Your task to perform on an android device: see sites visited before in the chrome app Image 0: 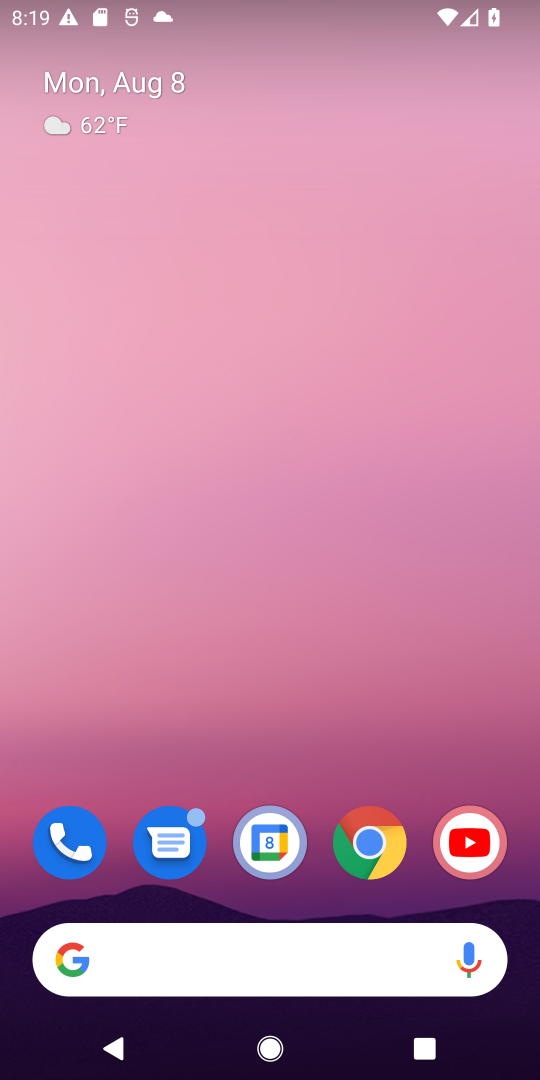
Step 0: click (374, 840)
Your task to perform on an android device: see sites visited before in the chrome app Image 1: 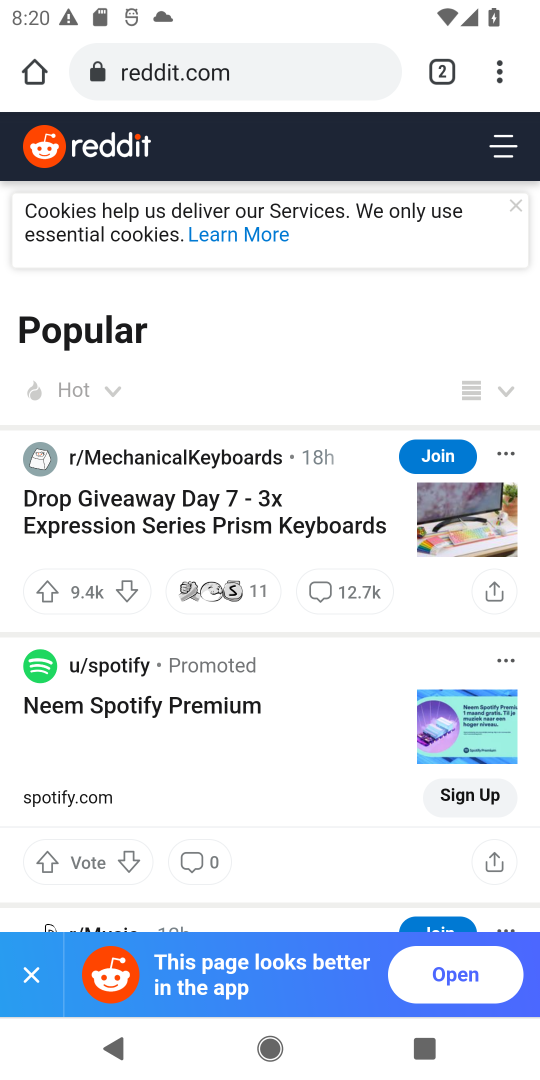
Step 1: click (498, 69)
Your task to perform on an android device: see sites visited before in the chrome app Image 2: 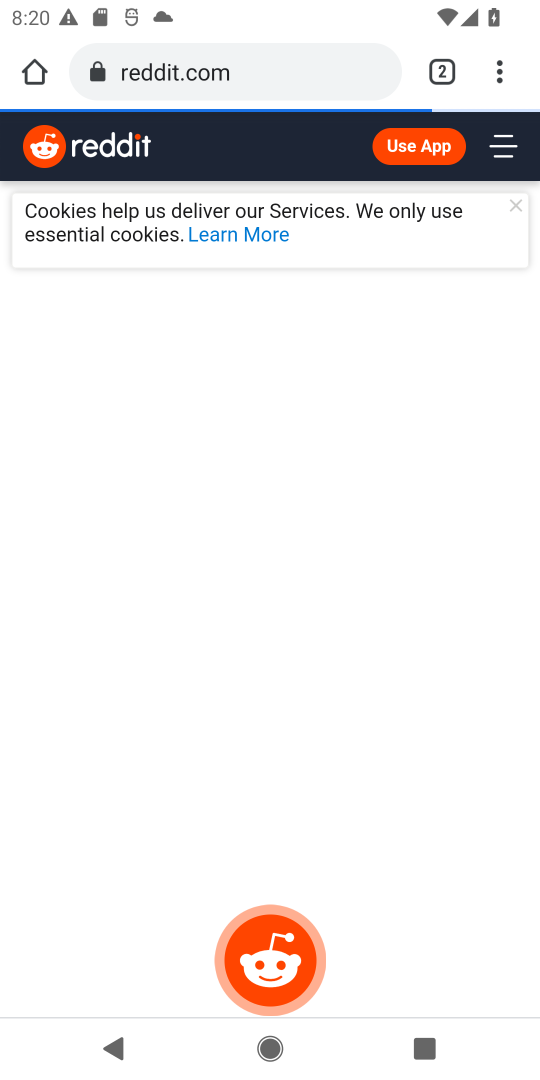
Step 2: click (498, 69)
Your task to perform on an android device: see sites visited before in the chrome app Image 3: 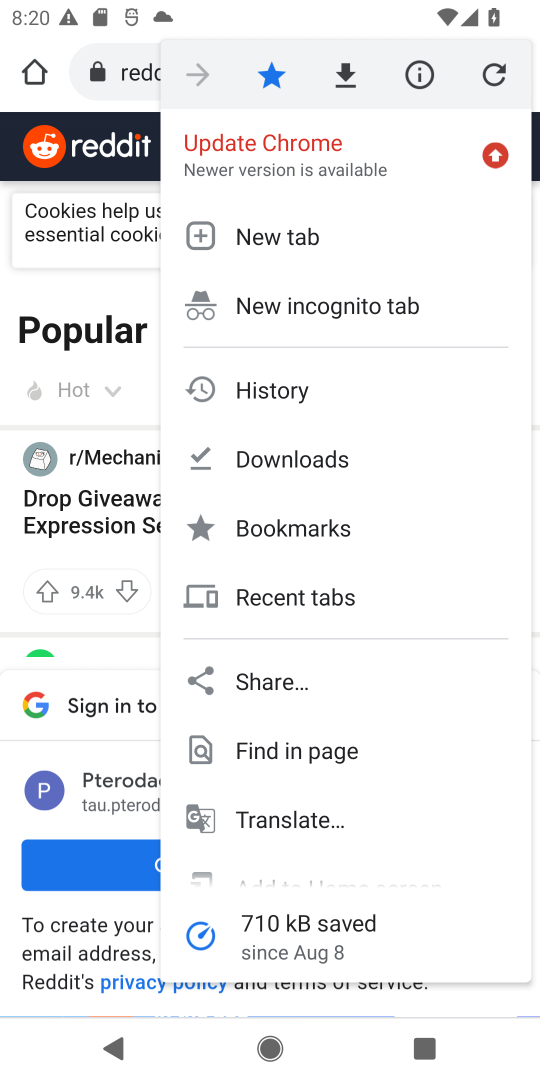
Step 3: click (278, 595)
Your task to perform on an android device: see sites visited before in the chrome app Image 4: 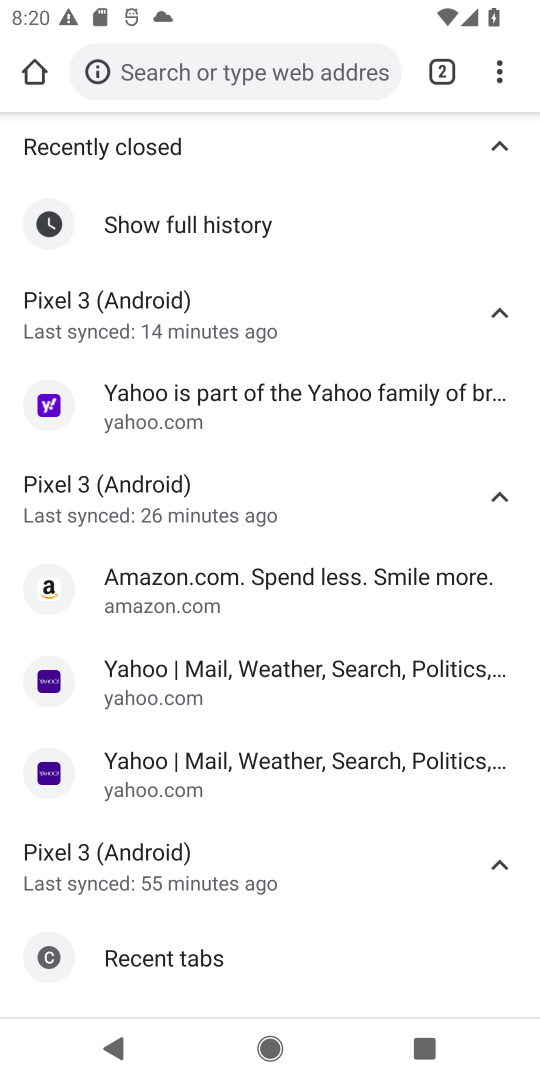
Step 4: task complete